Your task to perform on an android device: View the shopping cart on costco. Image 0: 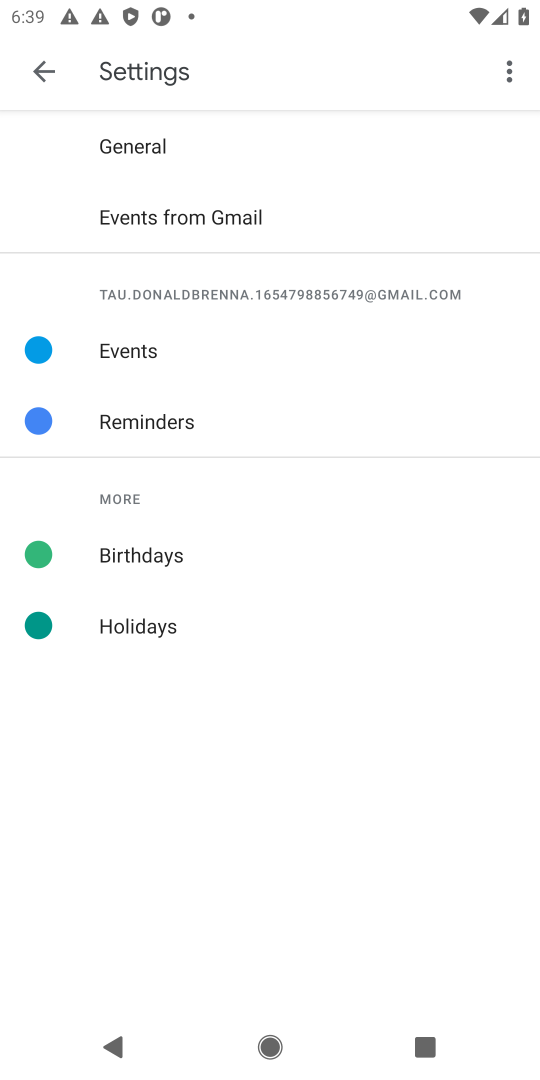
Step 0: press home button
Your task to perform on an android device: View the shopping cart on costco. Image 1: 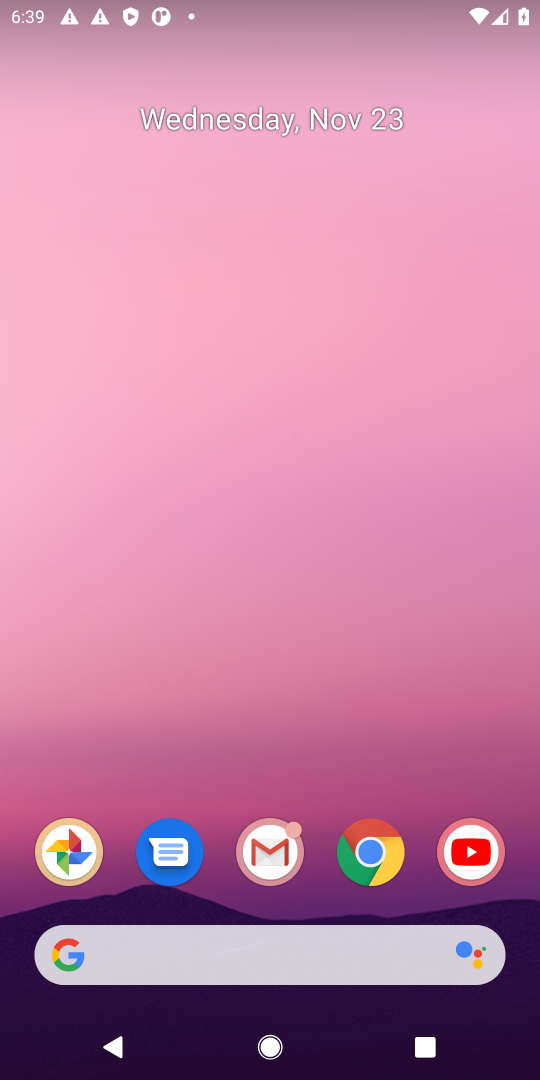
Step 1: drag from (322, 811) to (392, 148)
Your task to perform on an android device: View the shopping cart on costco. Image 2: 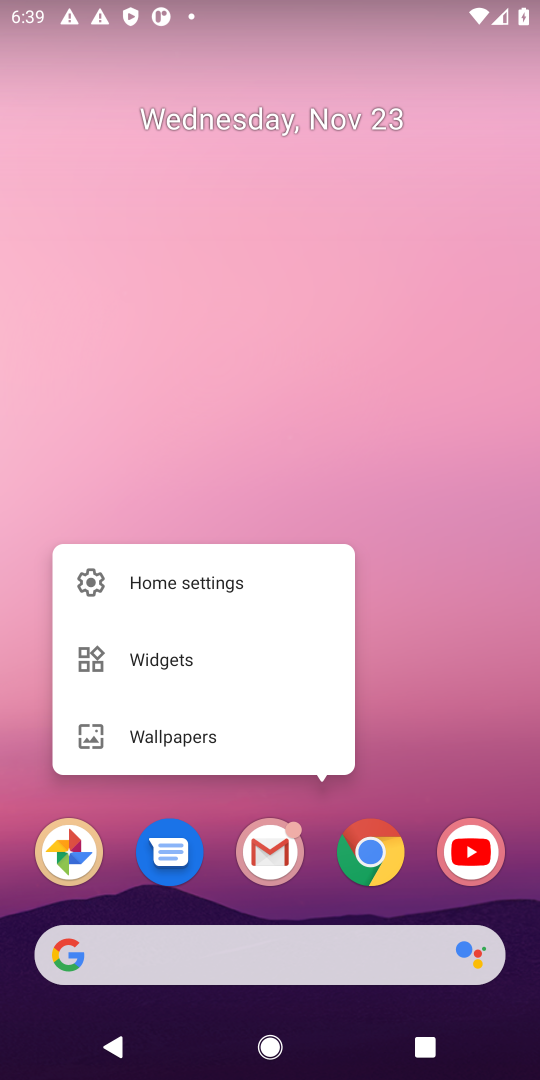
Step 2: click (410, 795)
Your task to perform on an android device: View the shopping cart on costco. Image 3: 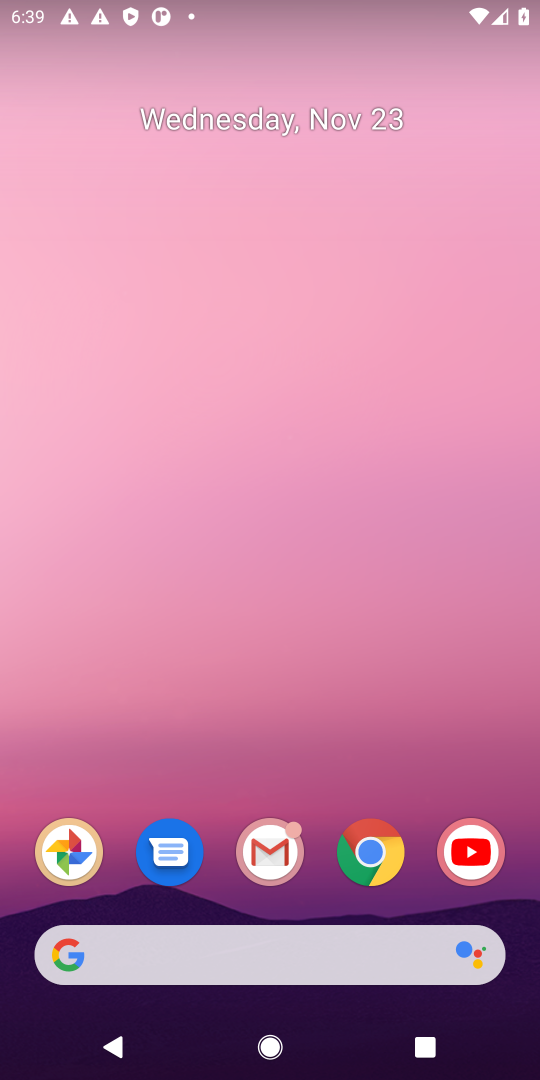
Step 3: drag from (410, 795) to (358, 118)
Your task to perform on an android device: View the shopping cart on costco. Image 4: 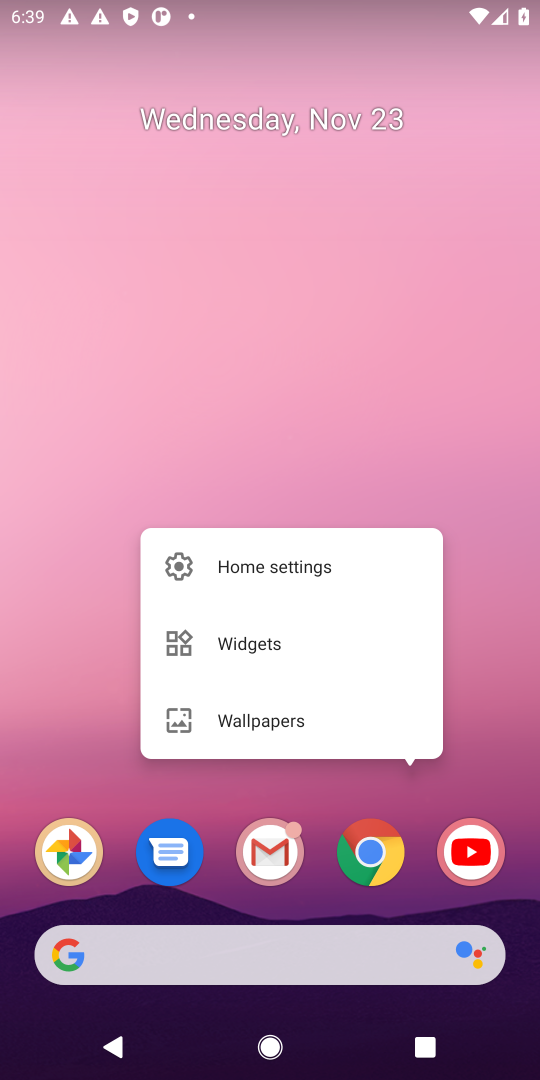
Step 4: click (374, 380)
Your task to perform on an android device: View the shopping cart on costco. Image 5: 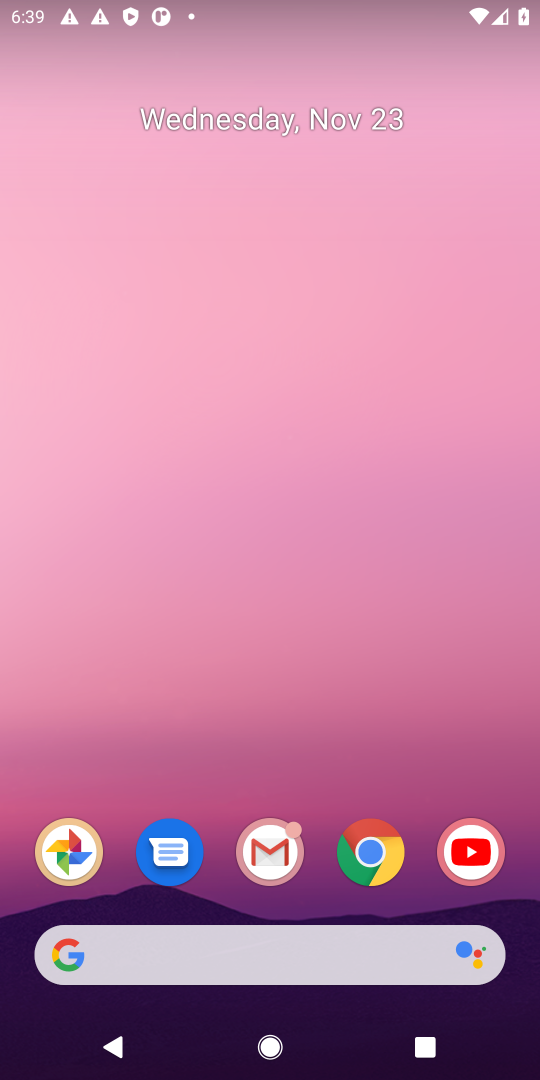
Step 5: drag from (322, 806) to (329, 2)
Your task to perform on an android device: View the shopping cart on costco. Image 6: 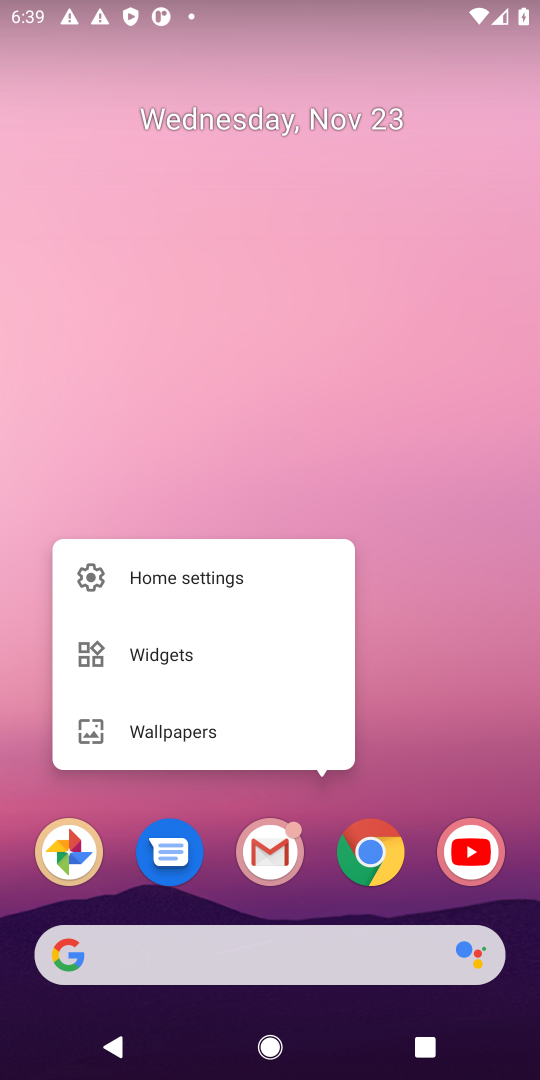
Step 6: click (416, 800)
Your task to perform on an android device: View the shopping cart on costco. Image 7: 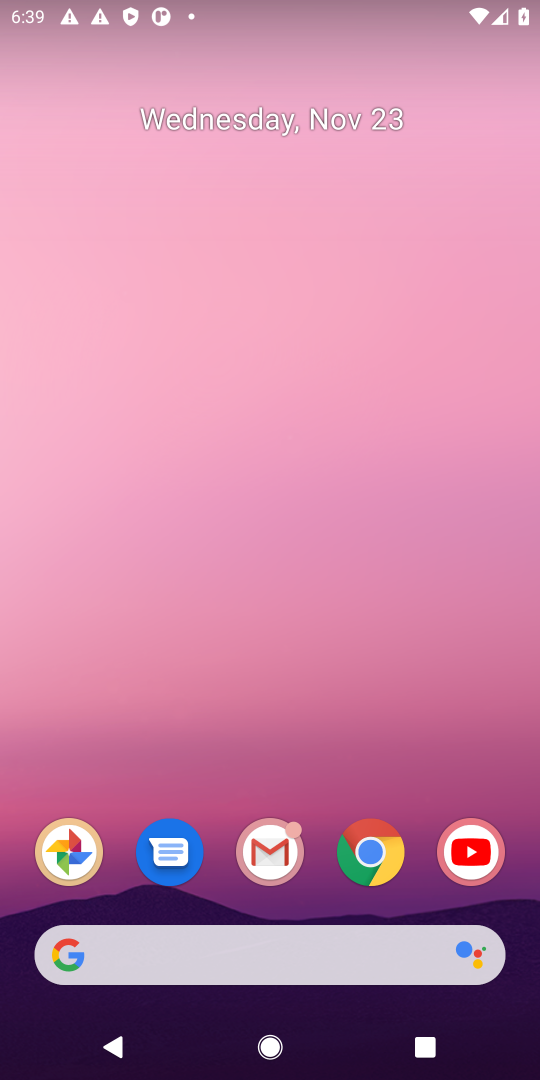
Step 7: drag from (411, 807) to (383, 126)
Your task to perform on an android device: View the shopping cart on costco. Image 8: 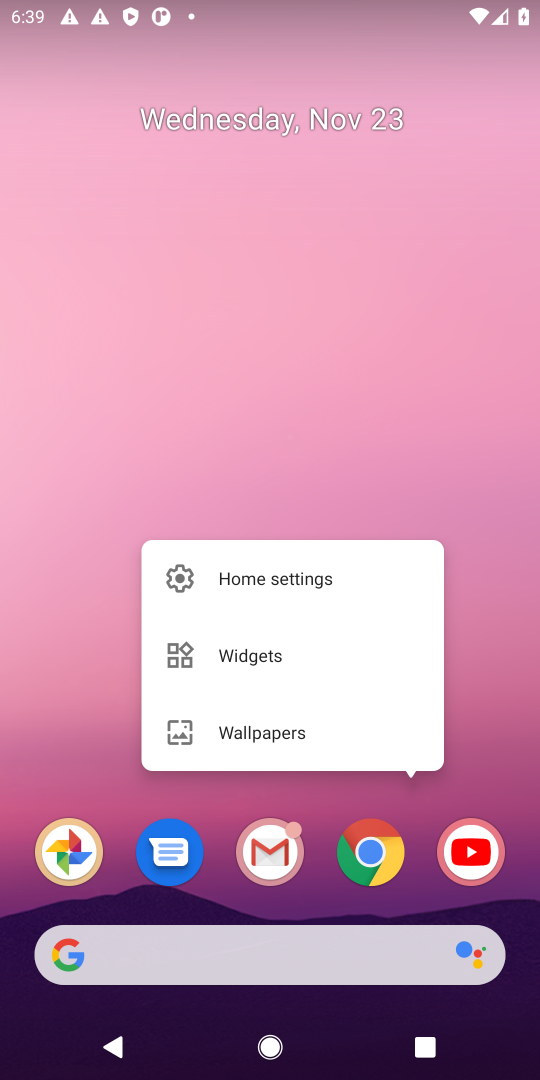
Step 8: click (129, 353)
Your task to perform on an android device: View the shopping cart on costco. Image 9: 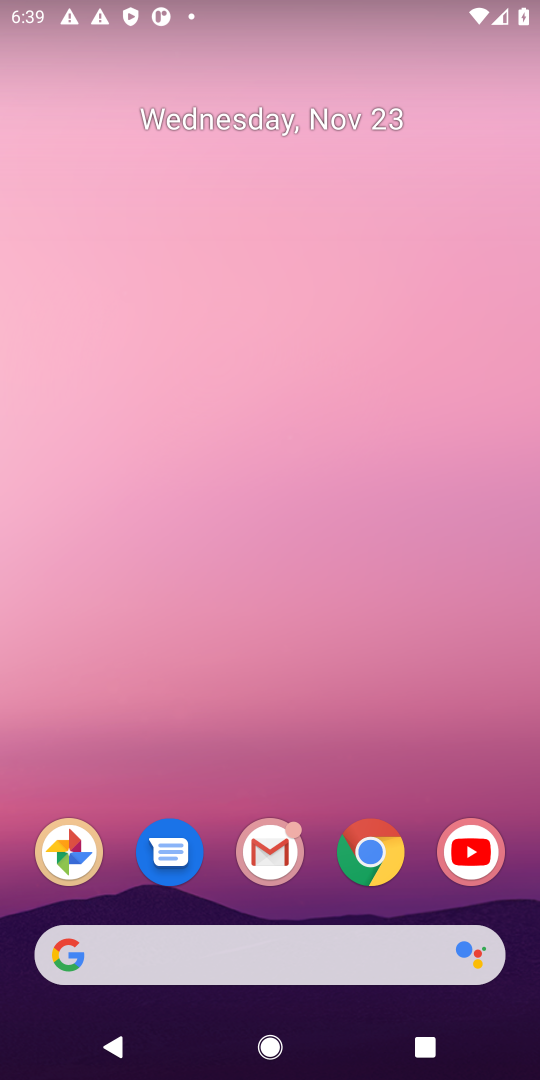
Step 9: click (370, 856)
Your task to perform on an android device: View the shopping cart on costco. Image 10: 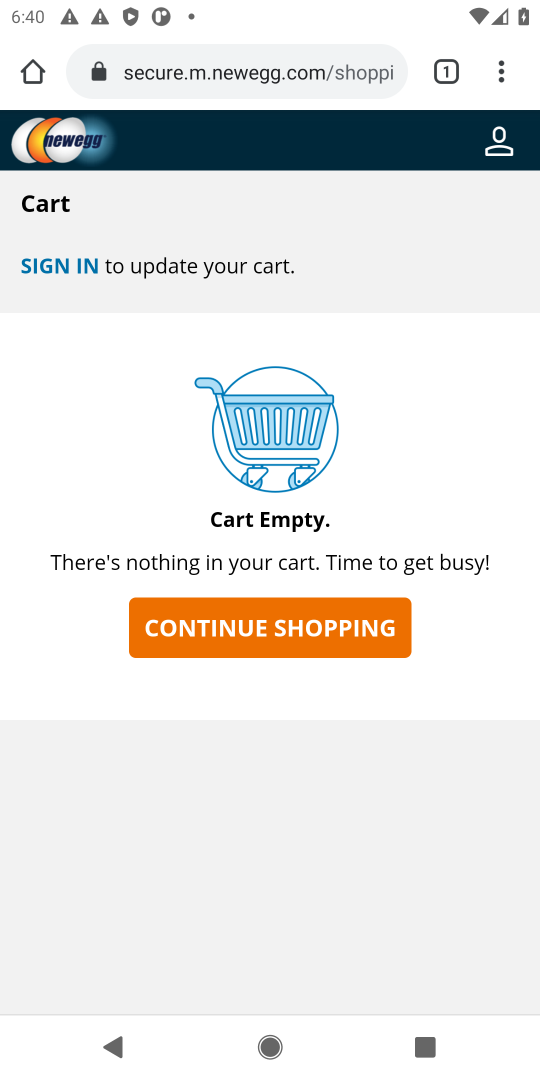
Step 10: click (209, 68)
Your task to perform on an android device: View the shopping cart on costco. Image 11: 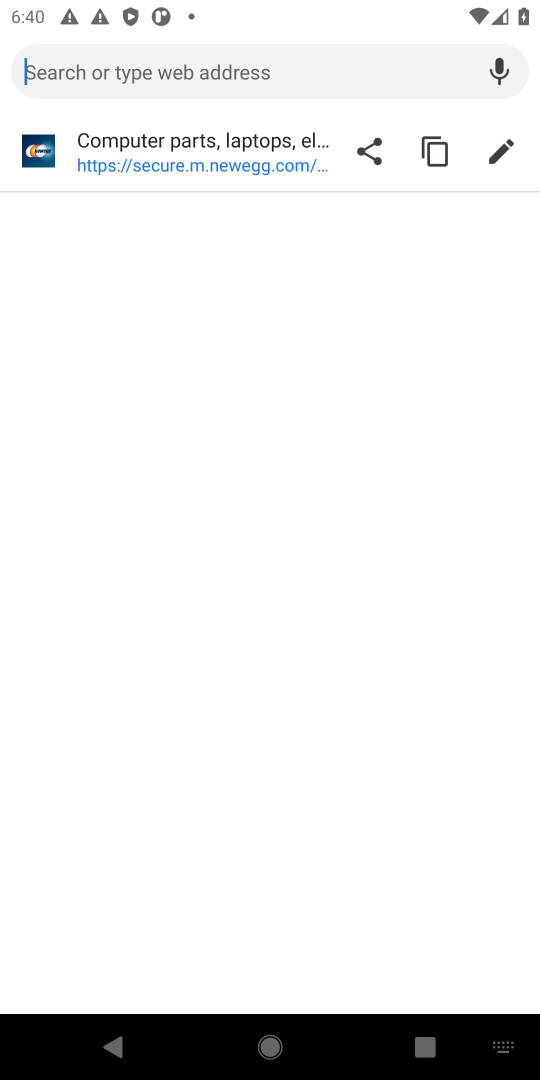
Step 11: type "costco"
Your task to perform on an android device: View the shopping cart on costco. Image 12: 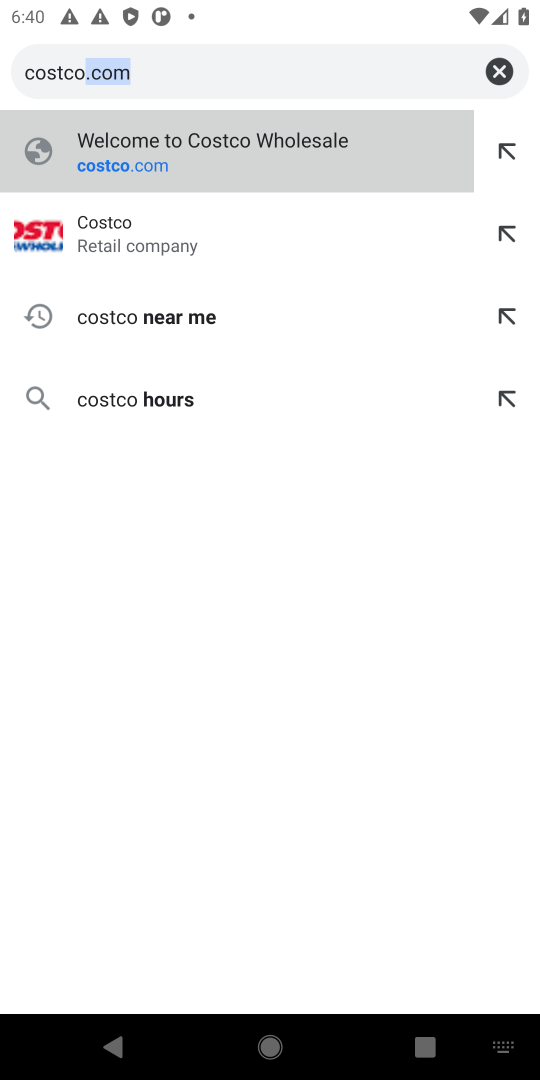
Step 12: click (135, 150)
Your task to perform on an android device: View the shopping cart on costco. Image 13: 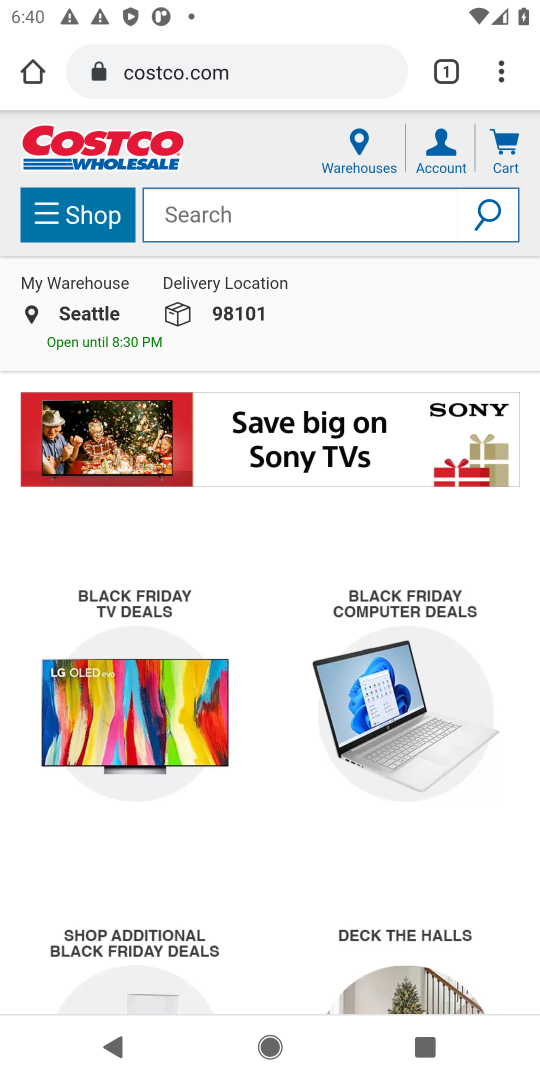
Step 13: click (511, 148)
Your task to perform on an android device: View the shopping cart on costco. Image 14: 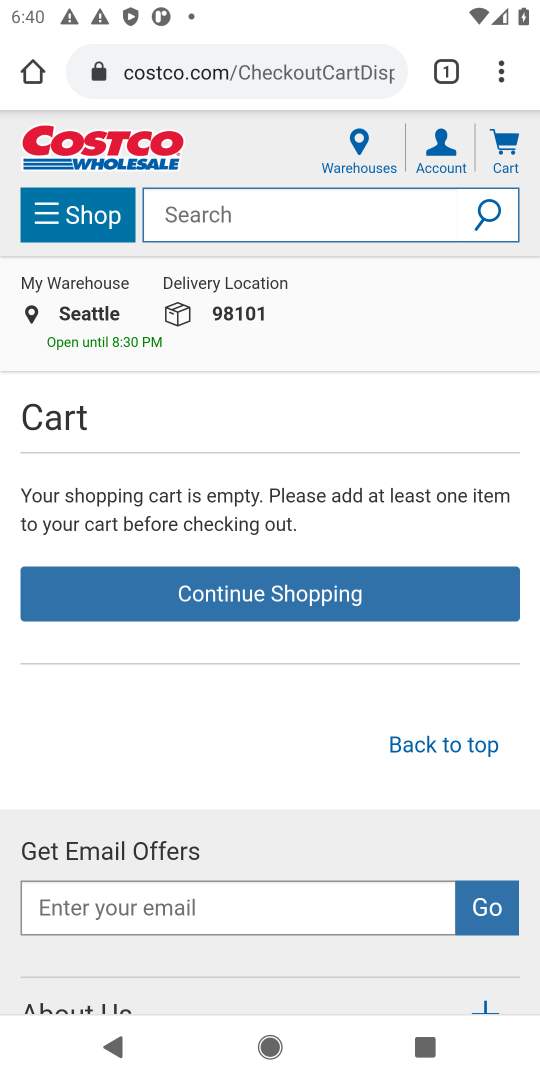
Step 14: task complete